Your task to perform on an android device: delete location history Image 0: 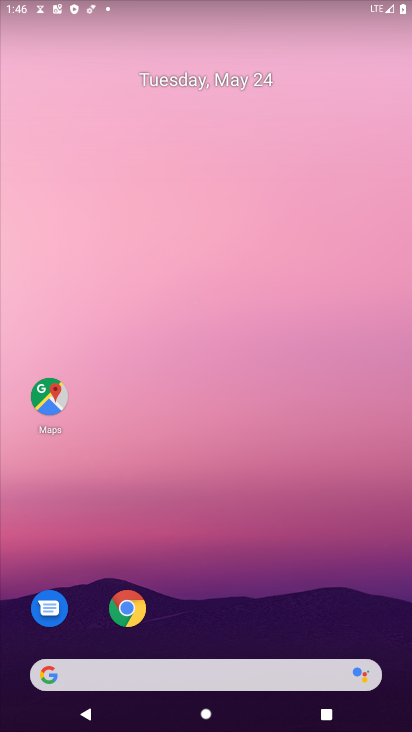
Step 0: click (55, 403)
Your task to perform on an android device: delete location history Image 1: 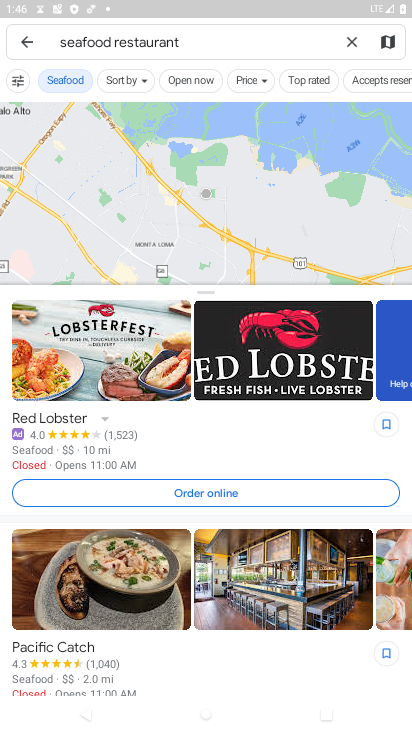
Step 1: click (24, 47)
Your task to perform on an android device: delete location history Image 2: 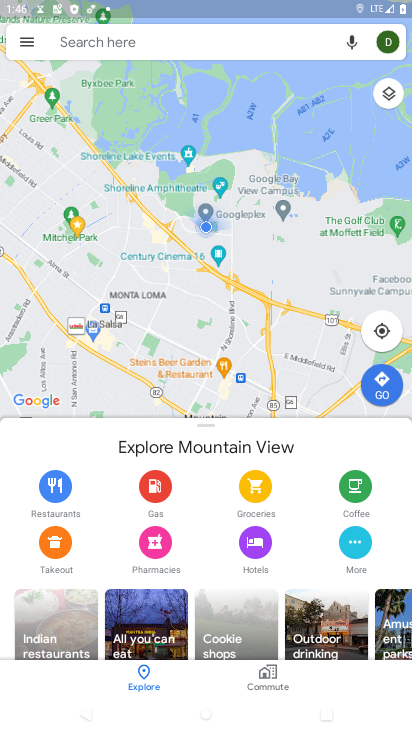
Step 2: click (24, 47)
Your task to perform on an android device: delete location history Image 3: 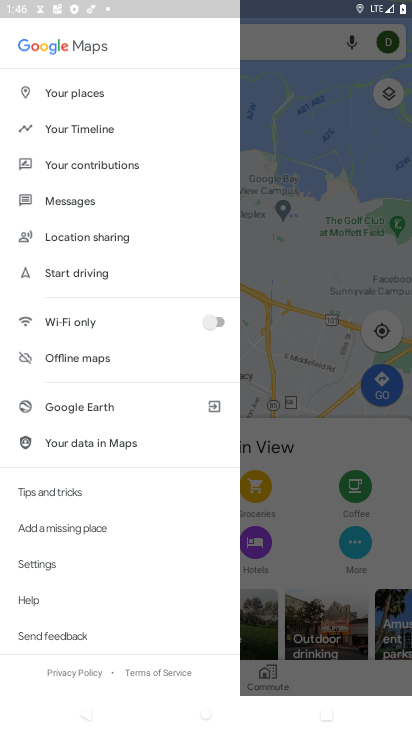
Step 3: click (61, 129)
Your task to perform on an android device: delete location history Image 4: 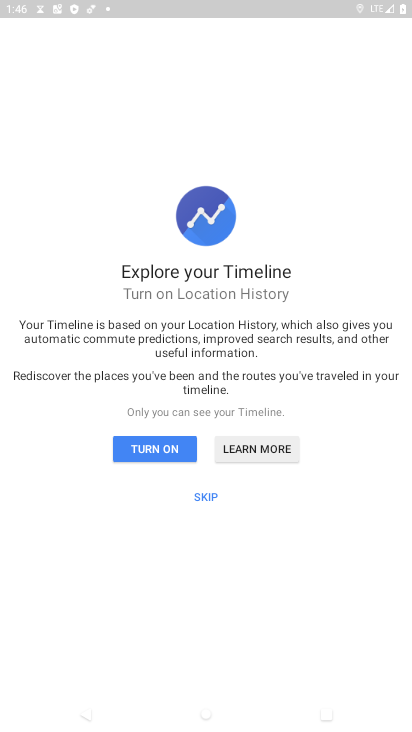
Step 4: click (214, 496)
Your task to perform on an android device: delete location history Image 5: 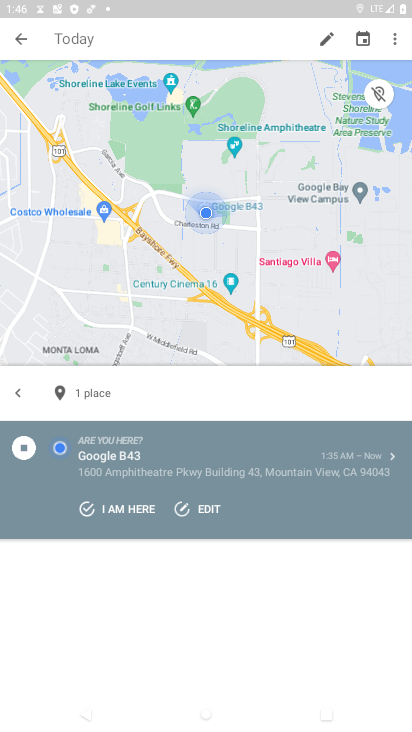
Step 5: click (394, 37)
Your task to perform on an android device: delete location history Image 6: 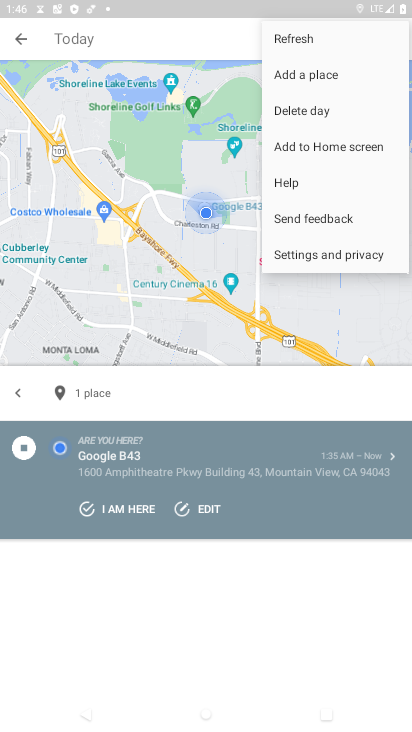
Step 6: click (318, 246)
Your task to perform on an android device: delete location history Image 7: 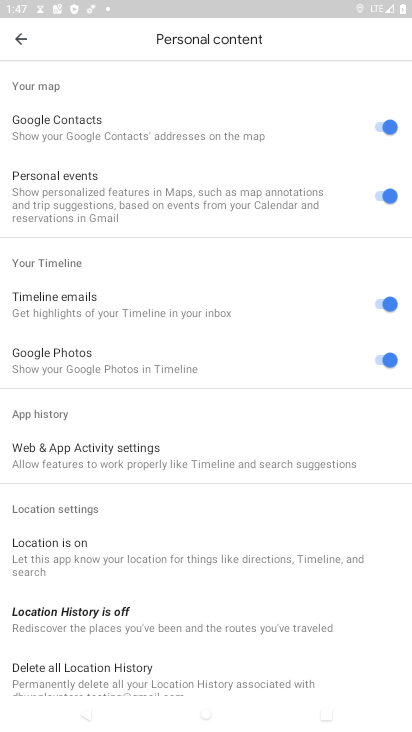
Step 7: click (253, 683)
Your task to perform on an android device: delete location history Image 8: 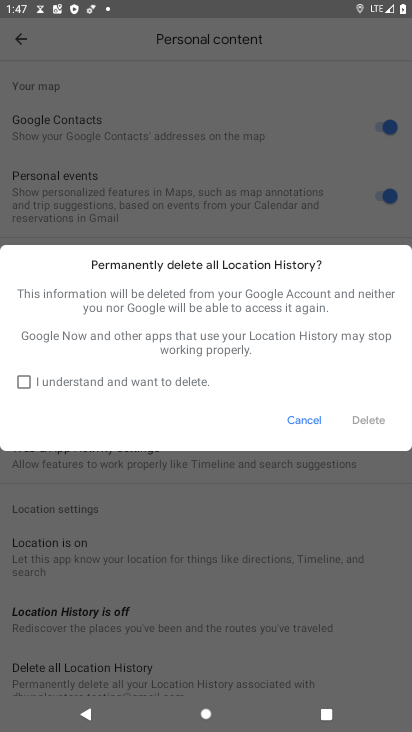
Step 8: click (170, 384)
Your task to perform on an android device: delete location history Image 9: 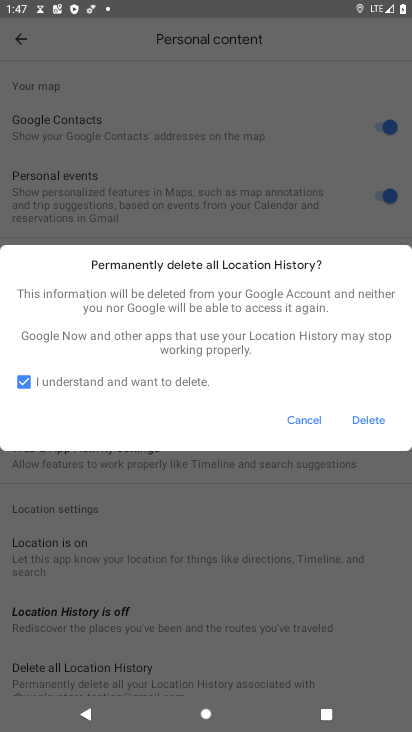
Step 9: click (367, 417)
Your task to perform on an android device: delete location history Image 10: 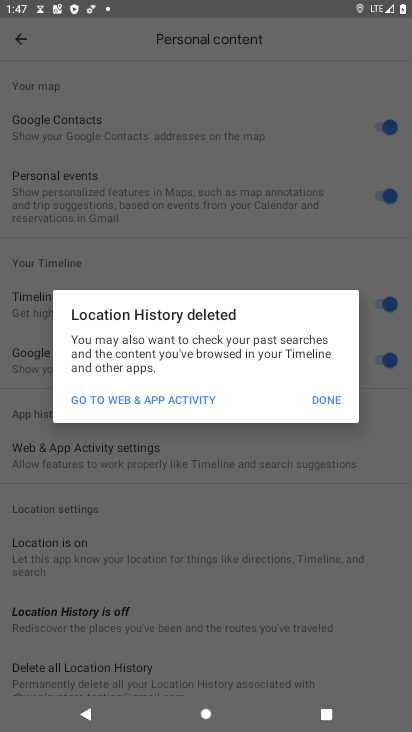
Step 10: click (331, 402)
Your task to perform on an android device: delete location history Image 11: 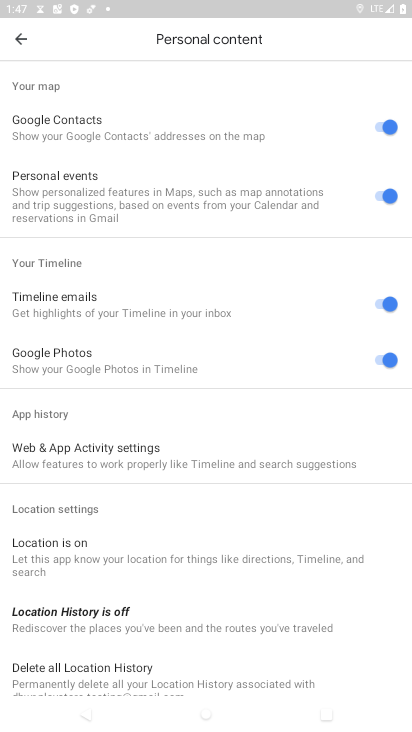
Step 11: task complete